Your task to perform on an android device: Go to sound settings Image 0: 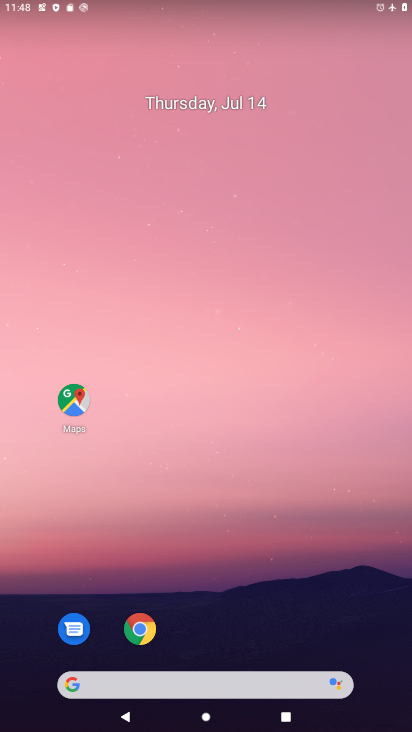
Step 0: press home button
Your task to perform on an android device: Go to sound settings Image 1: 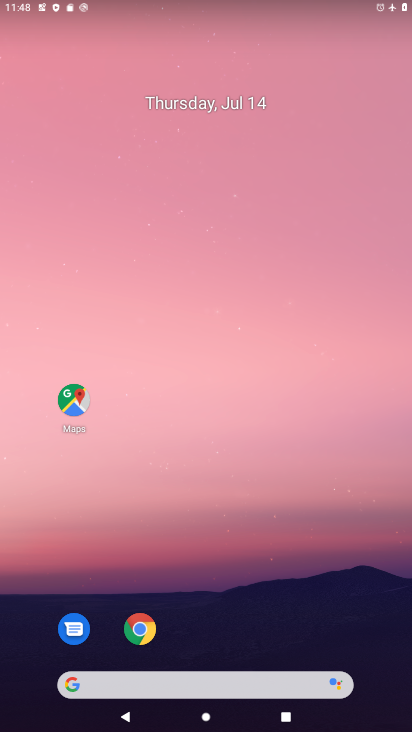
Step 1: drag from (206, 621) to (180, 165)
Your task to perform on an android device: Go to sound settings Image 2: 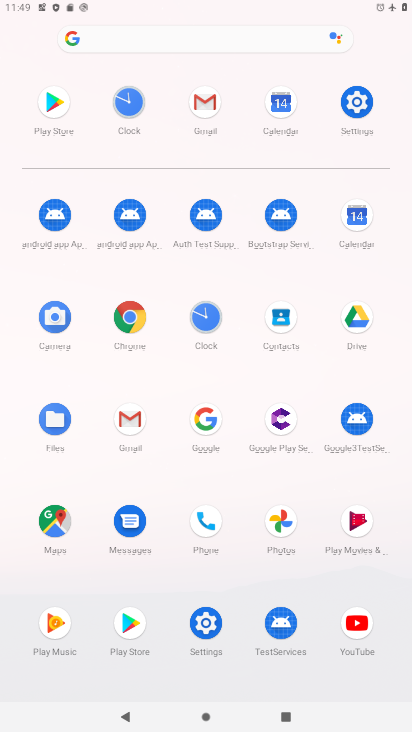
Step 2: click (363, 104)
Your task to perform on an android device: Go to sound settings Image 3: 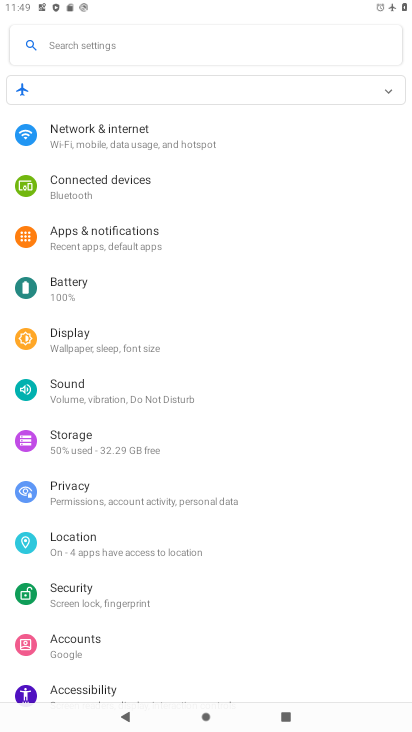
Step 3: click (64, 392)
Your task to perform on an android device: Go to sound settings Image 4: 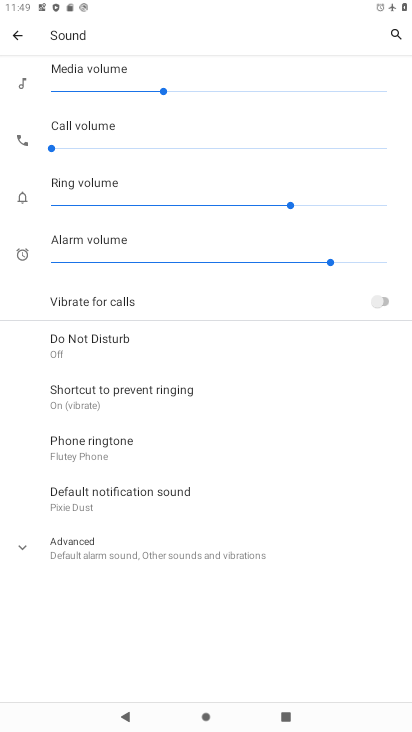
Step 4: task complete